Your task to perform on an android device: make emails show in primary in the gmail app Image 0: 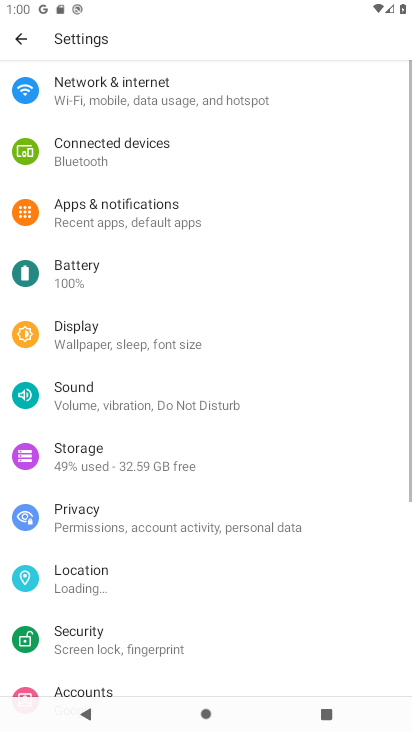
Step 0: press home button
Your task to perform on an android device: make emails show in primary in the gmail app Image 1: 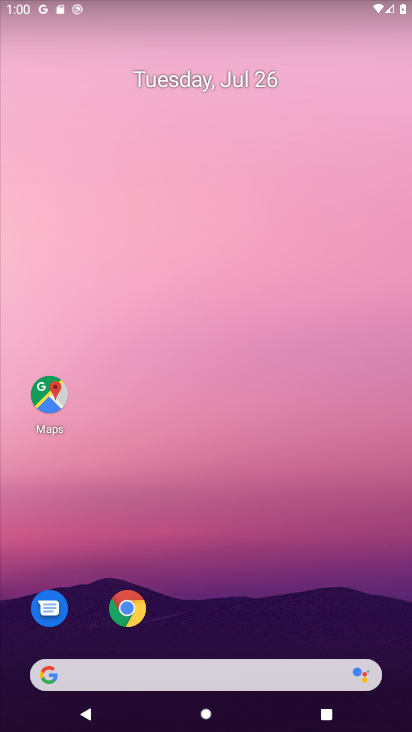
Step 1: drag from (235, 642) to (200, 19)
Your task to perform on an android device: make emails show in primary in the gmail app Image 2: 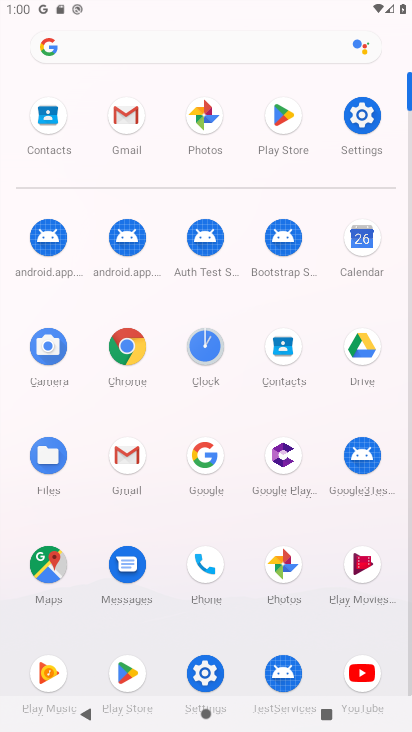
Step 2: click (139, 129)
Your task to perform on an android device: make emails show in primary in the gmail app Image 3: 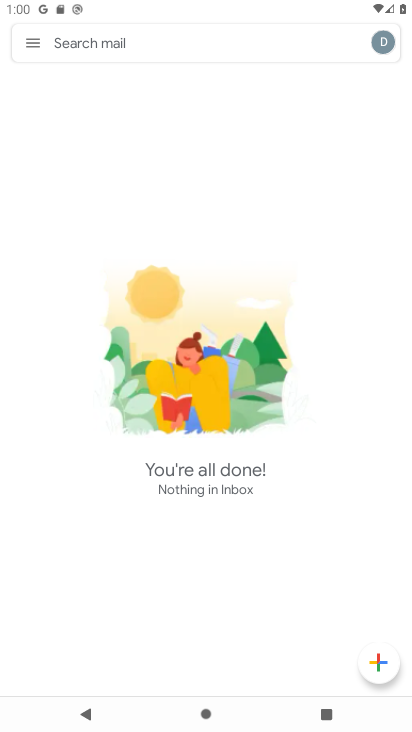
Step 3: click (37, 46)
Your task to perform on an android device: make emails show in primary in the gmail app Image 4: 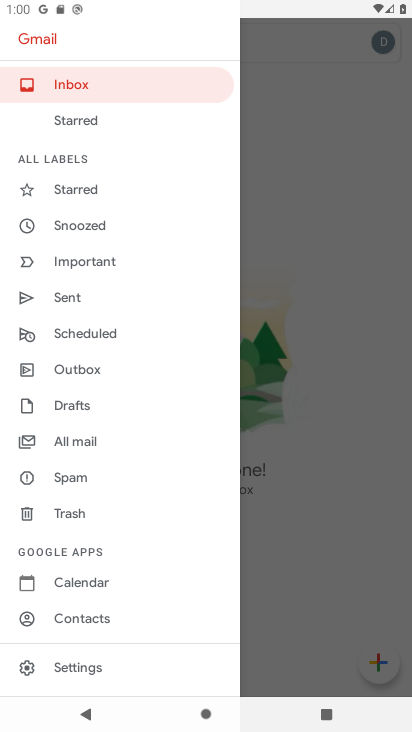
Step 4: task complete